Your task to perform on an android device: Open accessibility settings Image 0: 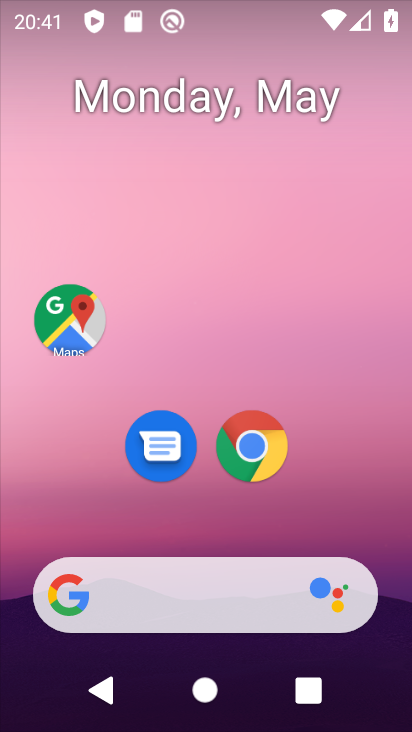
Step 0: drag from (339, 514) to (242, 71)
Your task to perform on an android device: Open accessibility settings Image 1: 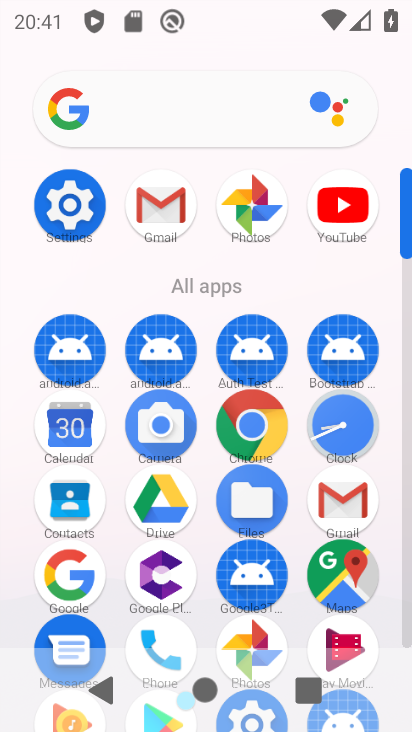
Step 1: click (54, 198)
Your task to perform on an android device: Open accessibility settings Image 2: 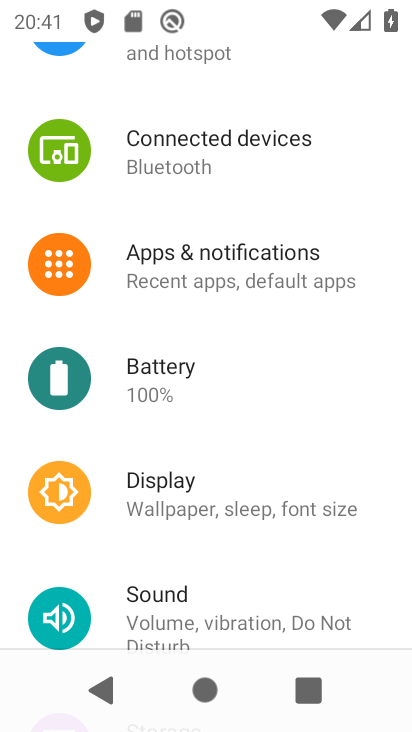
Step 2: drag from (195, 581) to (213, 124)
Your task to perform on an android device: Open accessibility settings Image 3: 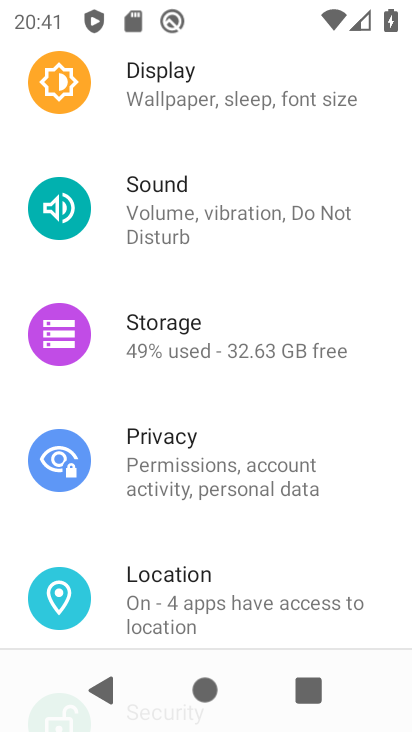
Step 3: drag from (189, 525) to (232, 154)
Your task to perform on an android device: Open accessibility settings Image 4: 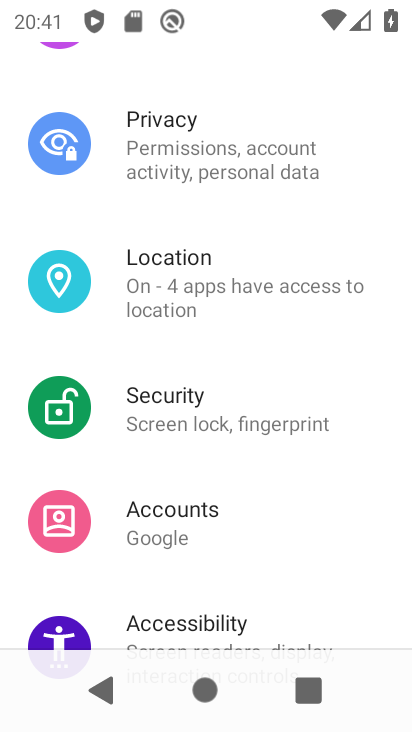
Step 4: drag from (207, 488) to (226, 119)
Your task to perform on an android device: Open accessibility settings Image 5: 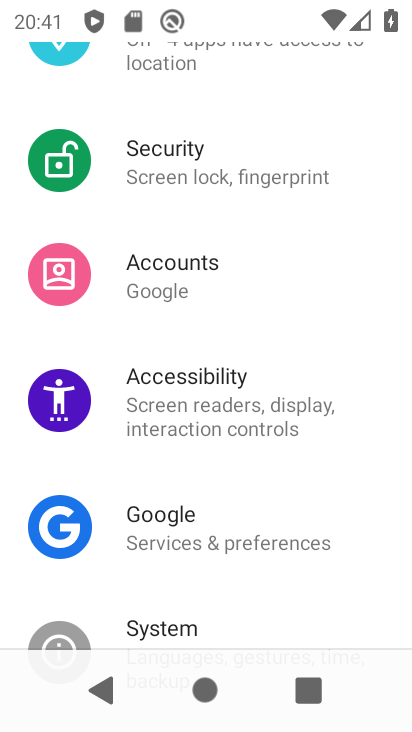
Step 5: click (223, 407)
Your task to perform on an android device: Open accessibility settings Image 6: 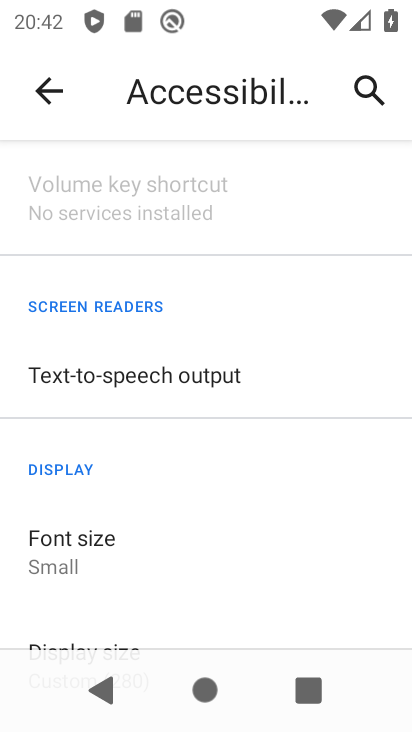
Step 6: task complete